Your task to perform on an android device: Empty the shopping cart on amazon. Search for razer blackwidow on amazon, select the first entry, and add it to the cart. Image 0: 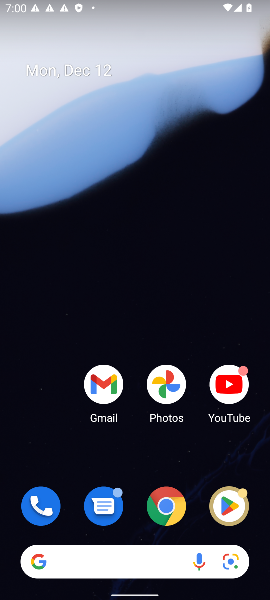
Step 0: click (163, 557)
Your task to perform on an android device: Empty the shopping cart on amazon. Search for razer blackwidow on amazon, select the first entry, and add it to the cart. Image 1: 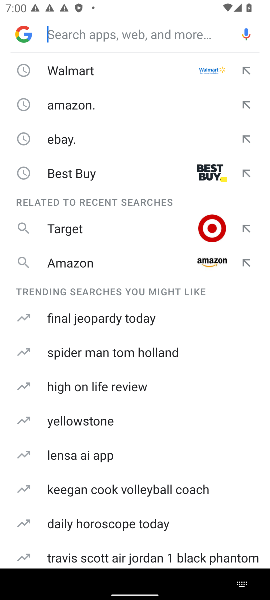
Step 1: click (59, 98)
Your task to perform on an android device: Empty the shopping cart on amazon. Search for razer blackwidow on amazon, select the first entry, and add it to the cart. Image 2: 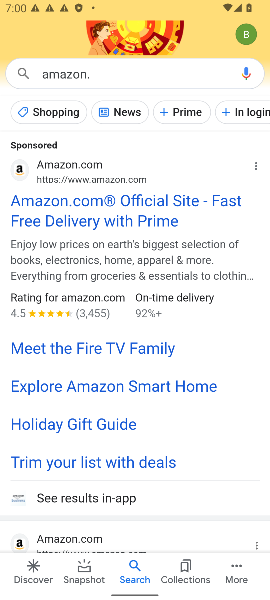
Step 2: click (88, 204)
Your task to perform on an android device: Empty the shopping cart on amazon. Search for razer blackwidow on amazon, select the first entry, and add it to the cart. Image 3: 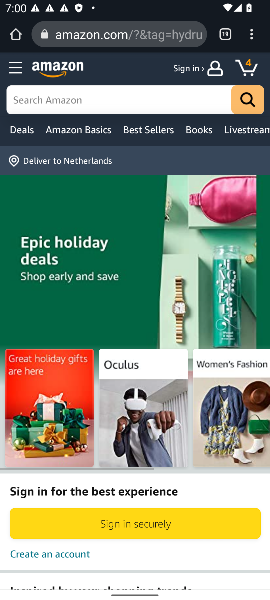
Step 3: click (71, 102)
Your task to perform on an android device: Empty the shopping cart on amazon. Search for razer blackwidow on amazon, select the first entry, and add it to the cart. Image 4: 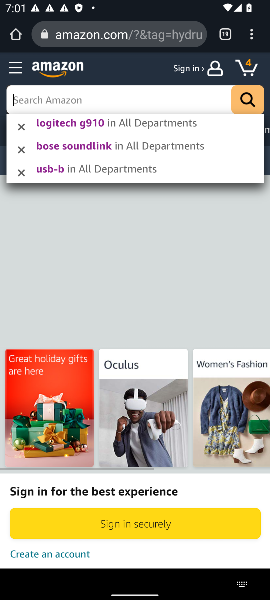
Step 4: type "razer blackwindow"
Your task to perform on an android device: Empty the shopping cart on amazon. Search for razer blackwidow on amazon, select the first entry, and add it to the cart. Image 5: 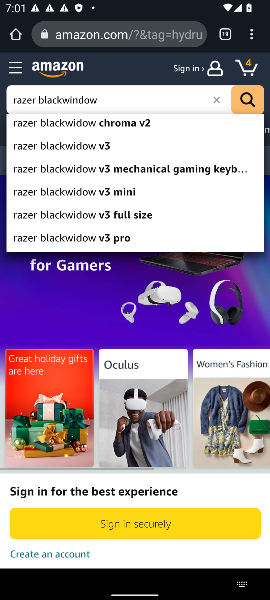
Step 5: click (247, 101)
Your task to perform on an android device: Empty the shopping cart on amazon. Search for razer blackwidow on amazon, select the first entry, and add it to the cart. Image 6: 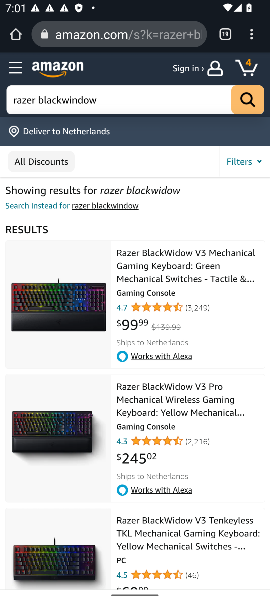
Step 6: click (173, 296)
Your task to perform on an android device: Empty the shopping cart on amazon. Search for razer blackwidow on amazon, select the first entry, and add it to the cart. Image 7: 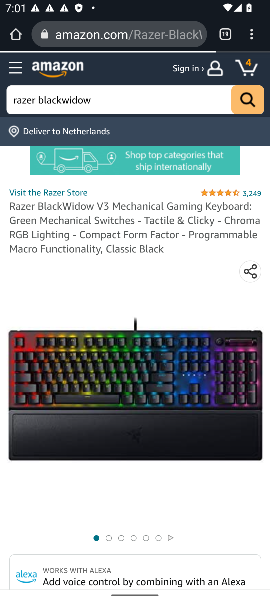
Step 7: drag from (177, 513) to (233, 167)
Your task to perform on an android device: Empty the shopping cart on amazon. Search for razer blackwidow on amazon, select the first entry, and add it to the cart. Image 8: 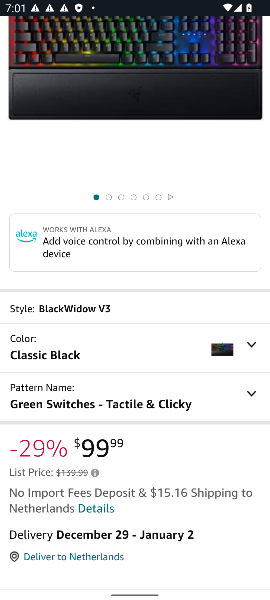
Step 8: drag from (229, 521) to (261, 261)
Your task to perform on an android device: Empty the shopping cart on amazon. Search for razer blackwidow on amazon, select the first entry, and add it to the cart. Image 9: 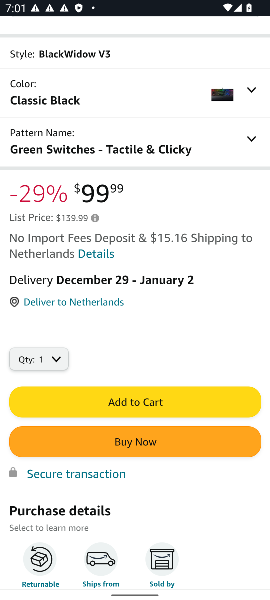
Step 9: click (202, 396)
Your task to perform on an android device: Empty the shopping cart on amazon. Search for razer blackwidow on amazon, select the first entry, and add it to the cart. Image 10: 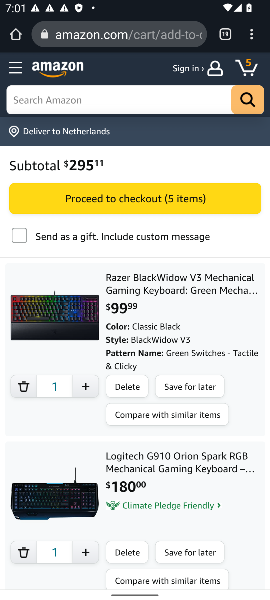
Step 10: task complete